Your task to perform on an android device: open device folders in google photos Image 0: 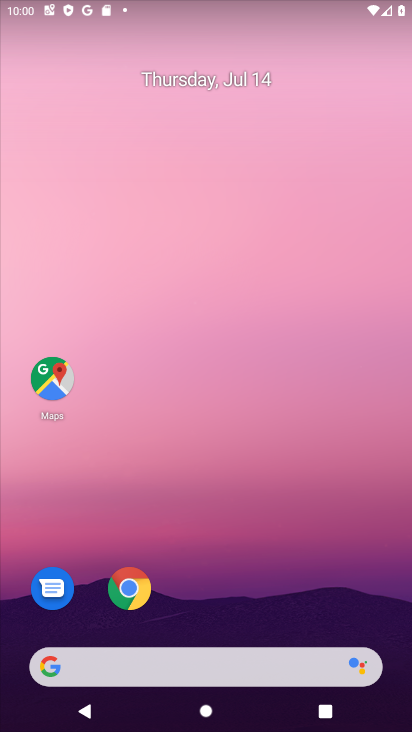
Step 0: drag from (193, 662) to (287, 111)
Your task to perform on an android device: open device folders in google photos Image 1: 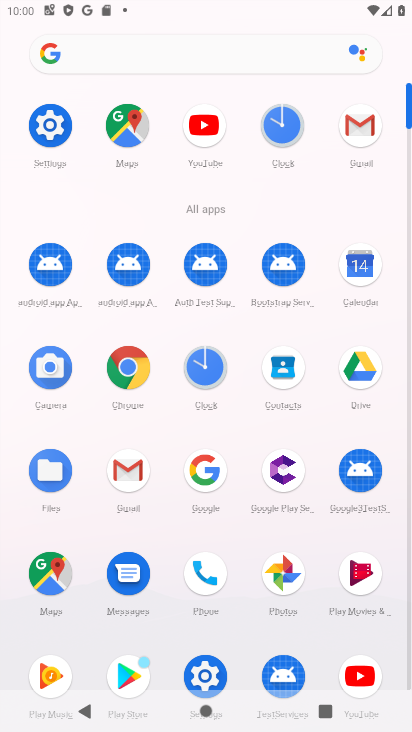
Step 1: click (287, 568)
Your task to perform on an android device: open device folders in google photos Image 2: 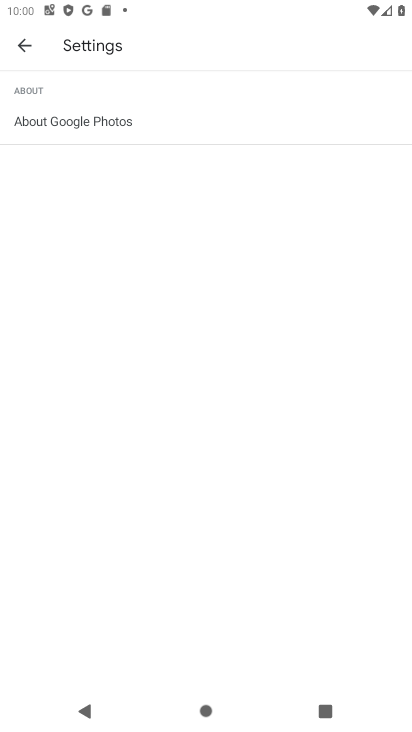
Step 2: click (21, 39)
Your task to perform on an android device: open device folders in google photos Image 3: 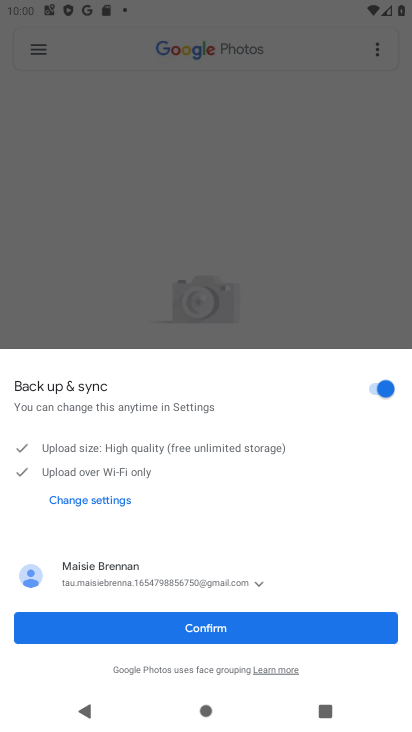
Step 3: click (201, 628)
Your task to perform on an android device: open device folders in google photos Image 4: 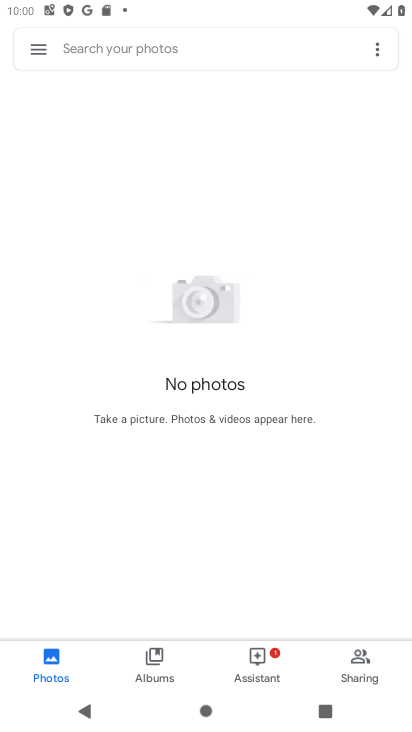
Step 4: click (37, 48)
Your task to perform on an android device: open device folders in google photos Image 5: 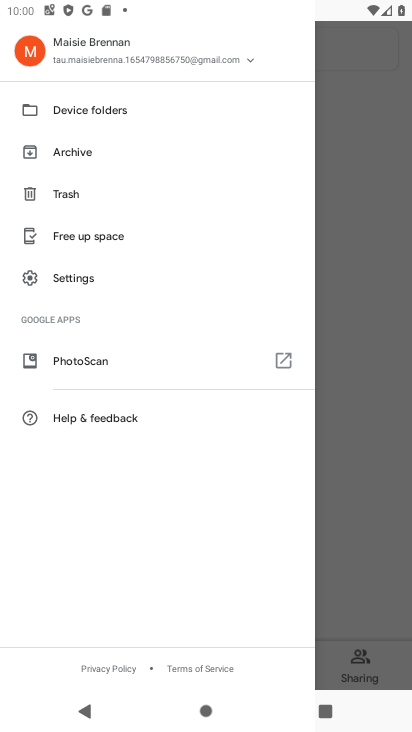
Step 5: click (58, 113)
Your task to perform on an android device: open device folders in google photos Image 6: 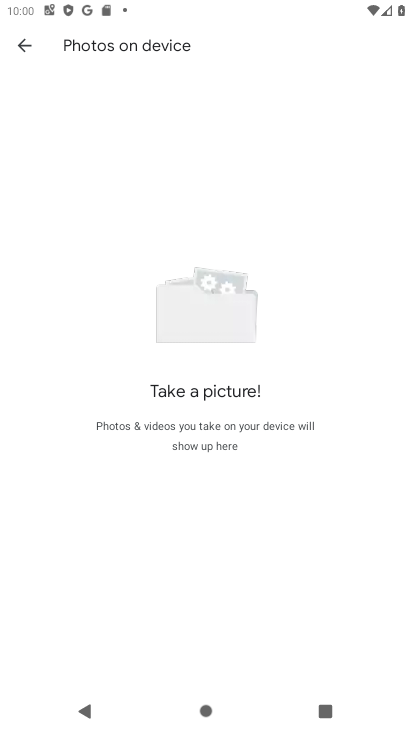
Step 6: task complete